Your task to perform on an android device: Open accessibility settings Image 0: 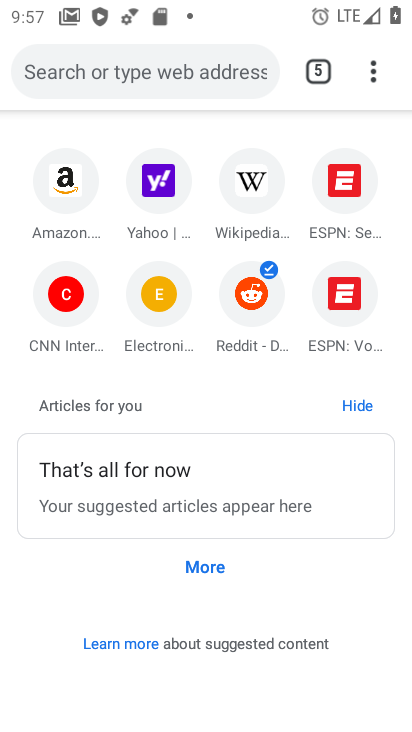
Step 0: press back button
Your task to perform on an android device: Open accessibility settings Image 1: 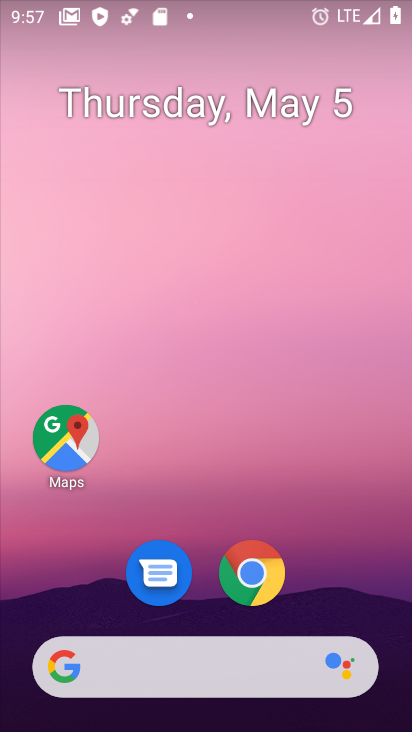
Step 1: drag from (164, 618) to (269, 27)
Your task to perform on an android device: Open accessibility settings Image 2: 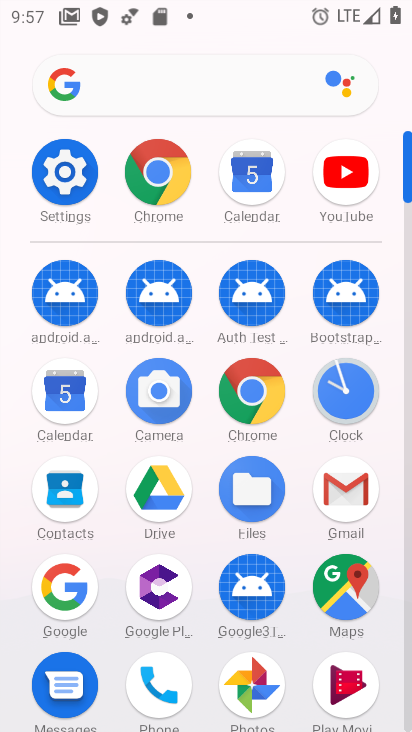
Step 2: click (65, 164)
Your task to perform on an android device: Open accessibility settings Image 3: 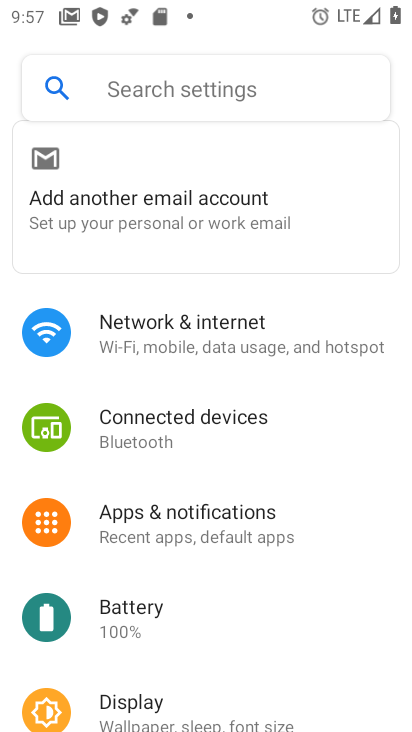
Step 3: drag from (222, 586) to (314, 102)
Your task to perform on an android device: Open accessibility settings Image 4: 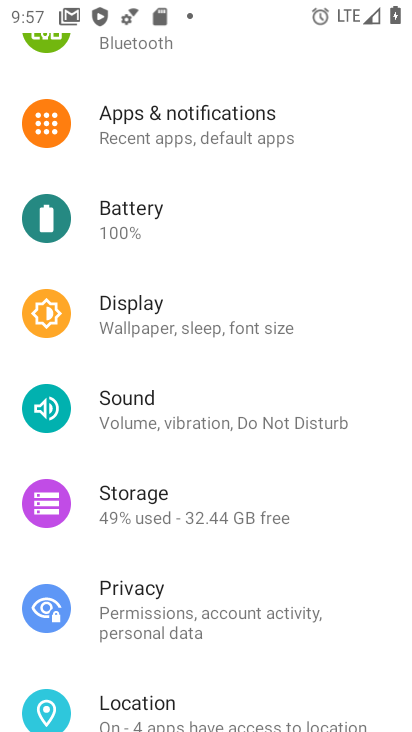
Step 4: drag from (202, 644) to (335, 54)
Your task to perform on an android device: Open accessibility settings Image 5: 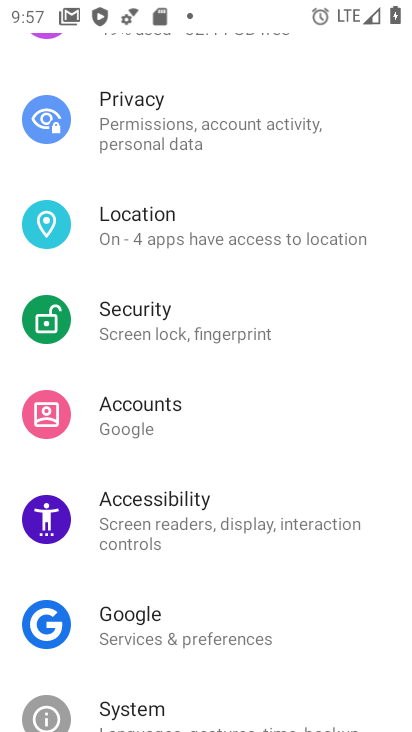
Step 5: click (184, 516)
Your task to perform on an android device: Open accessibility settings Image 6: 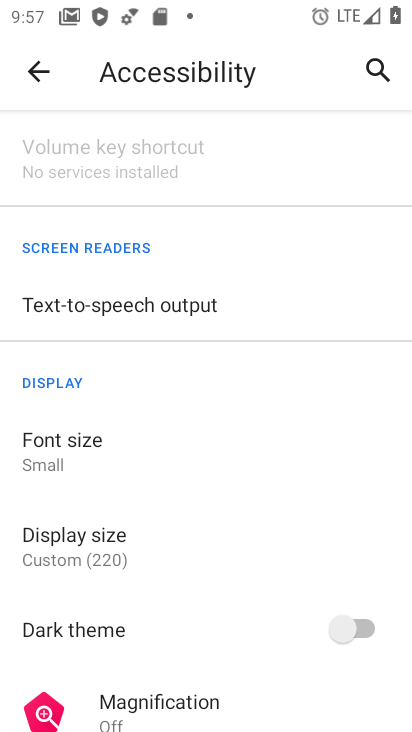
Step 6: task complete